Your task to perform on an android device: open app "Venmo" (install if not already installed) Image 0: 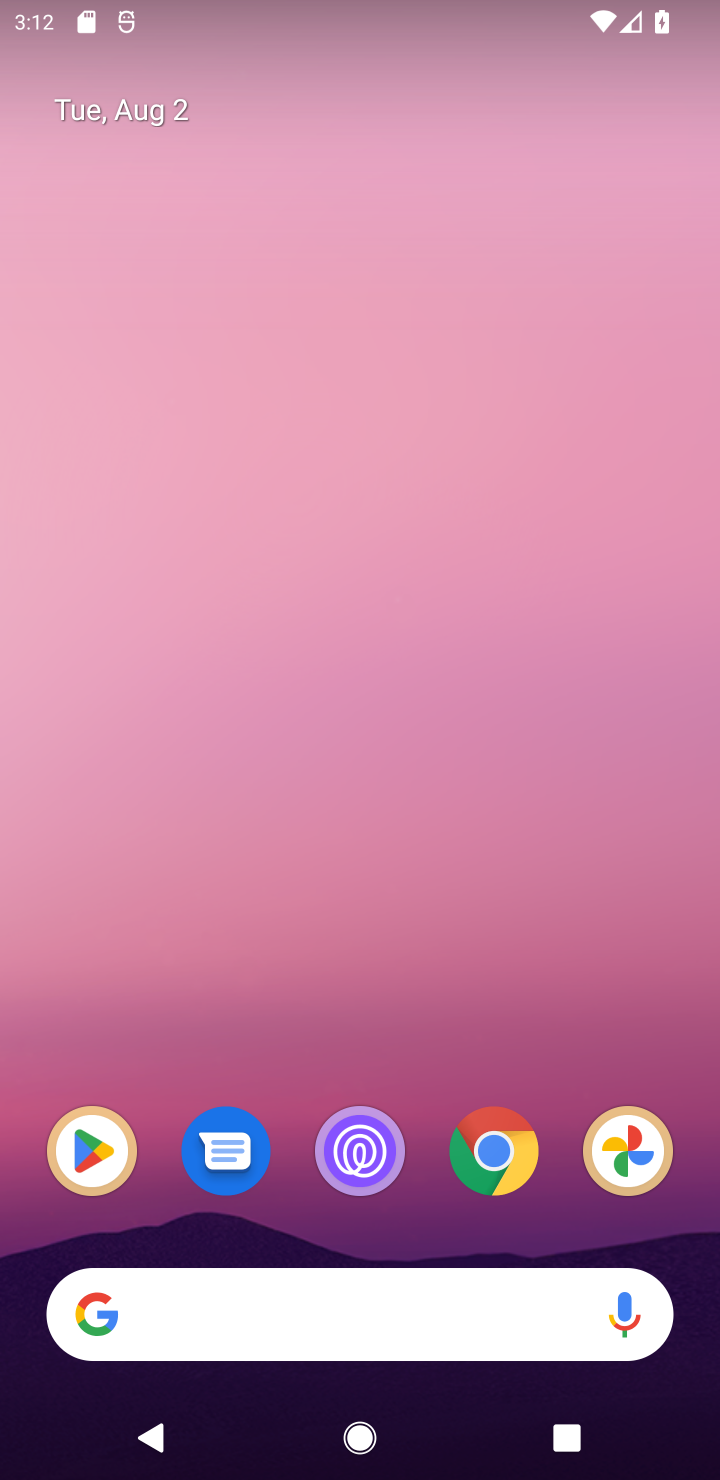
Step 0: drag from (423, 1389) to (346, 366)
Your task to perform on an android device: open app "Venmo" (install if not already installed) Image 1: 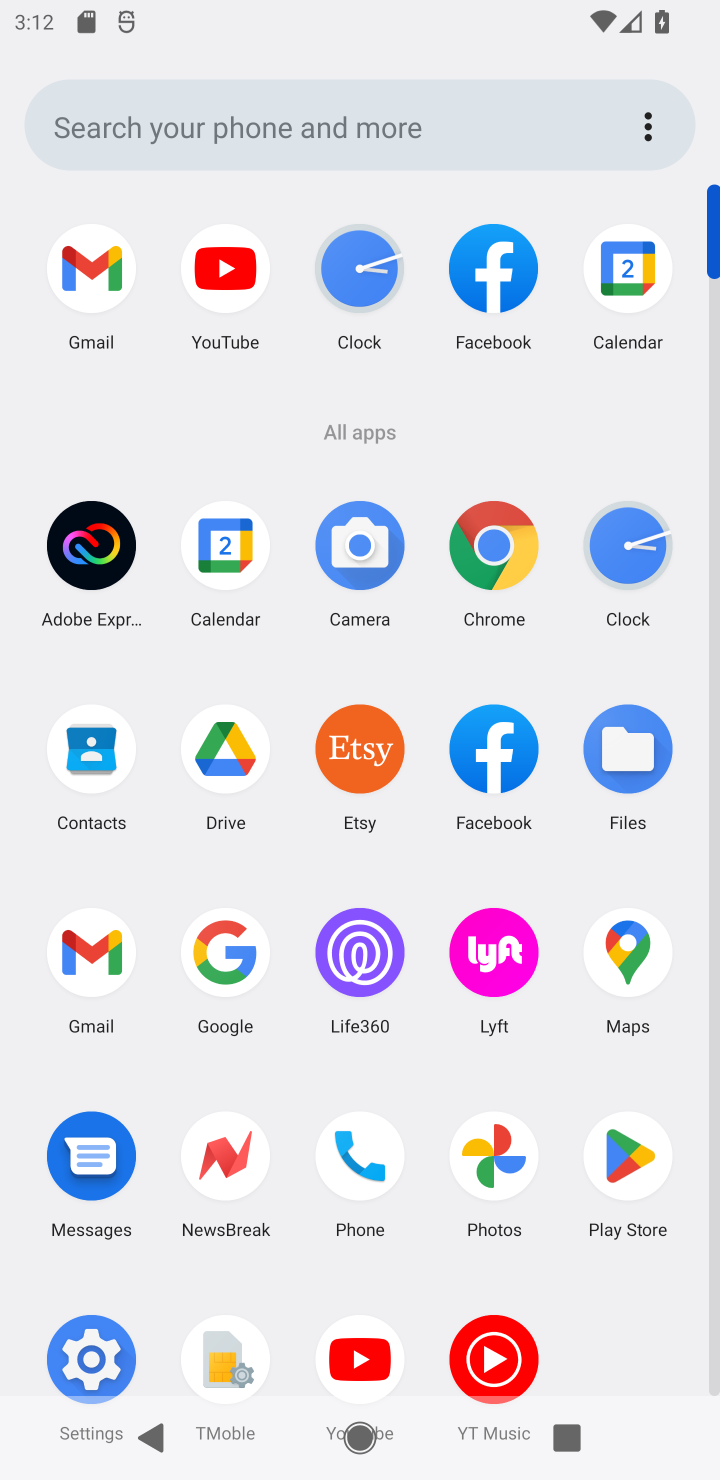
Step 1: press home button
Your task to perform on an android device: open app "Venmo" (install if not already installed) Image 2: 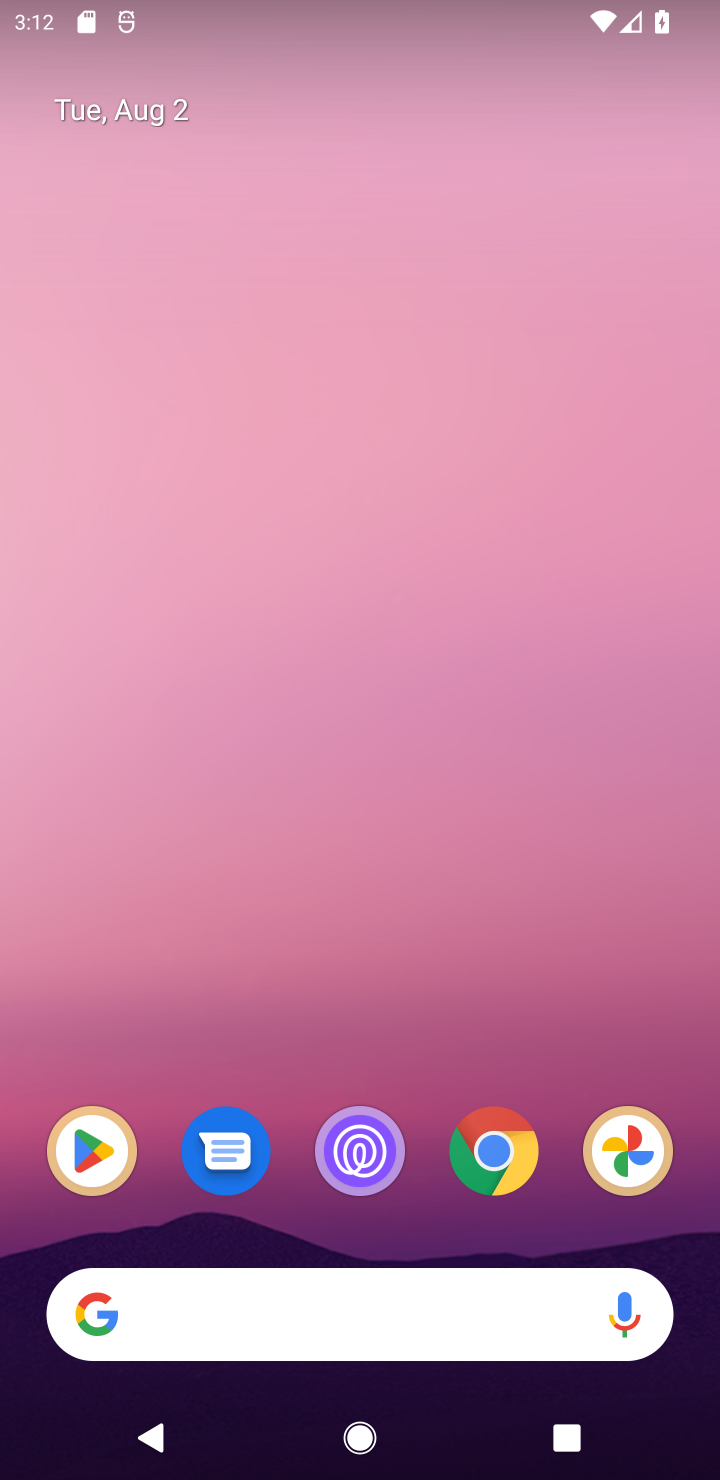
Step 2: drag from (395, 1411) to (334, 222)
Your task to perform on an android device: open app "Venmo" (install if not already installed) Image 3: 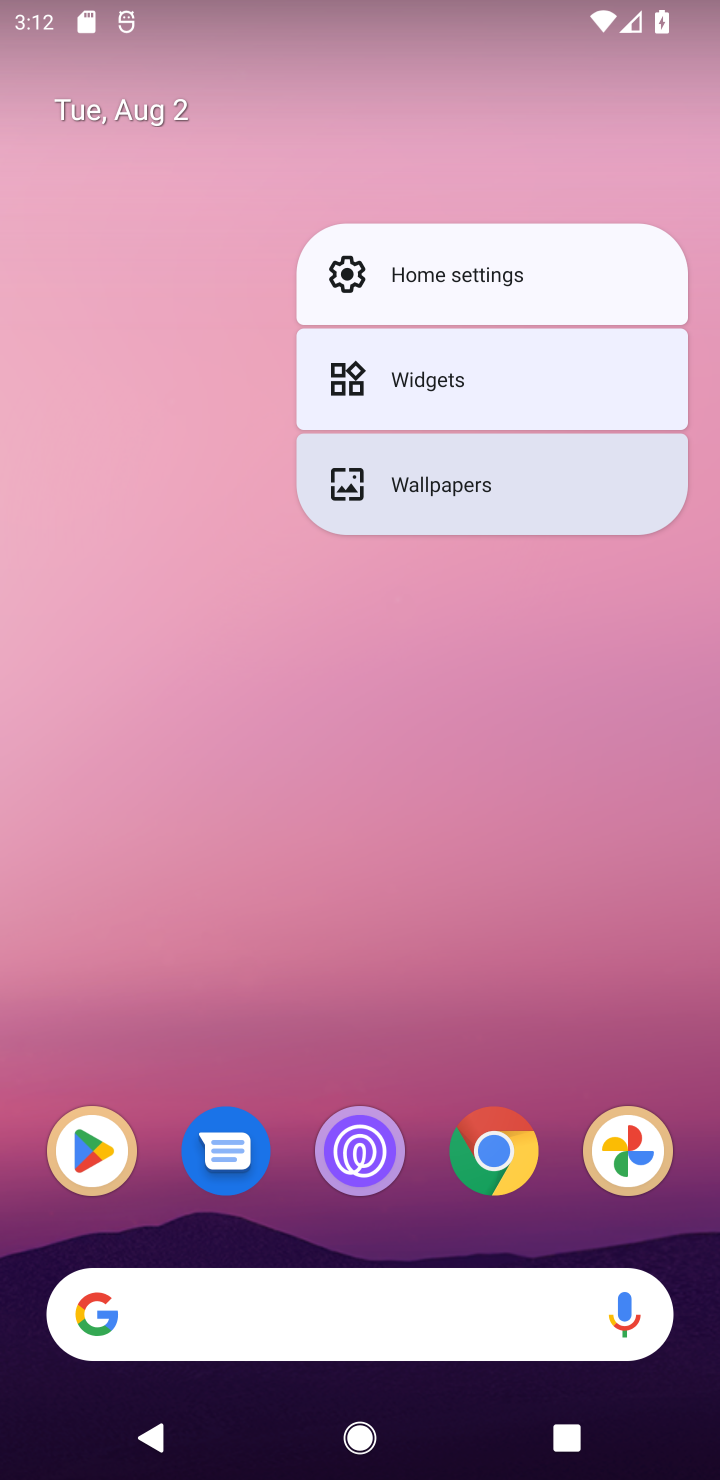
Step 3: click (444, 688)
Your task to perform on an android device: open app "Venmo" (install if not already installed) Image 4: 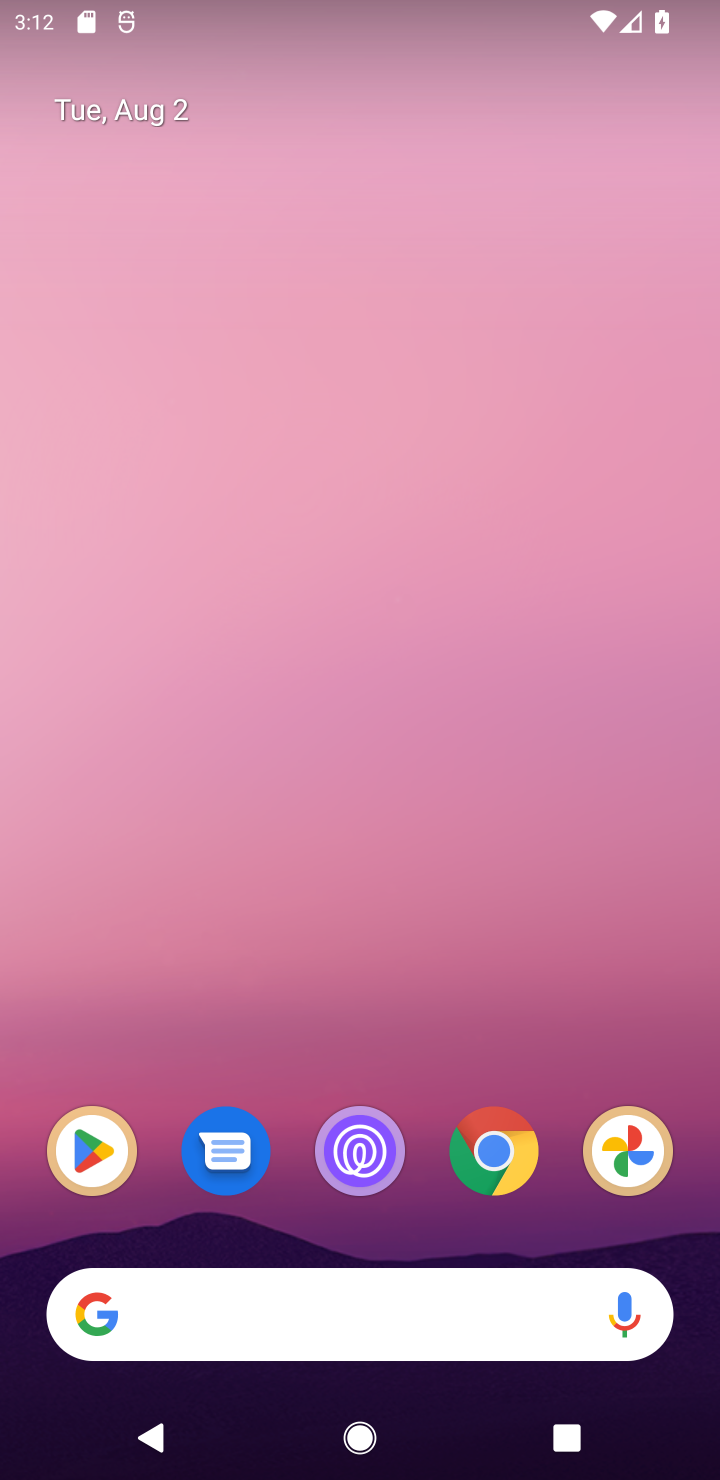
Step 4: drag from (442, 973) to (442, 235)
Your task to perform on an android device: open app "Venmo" (install if not already installed) Image 5: 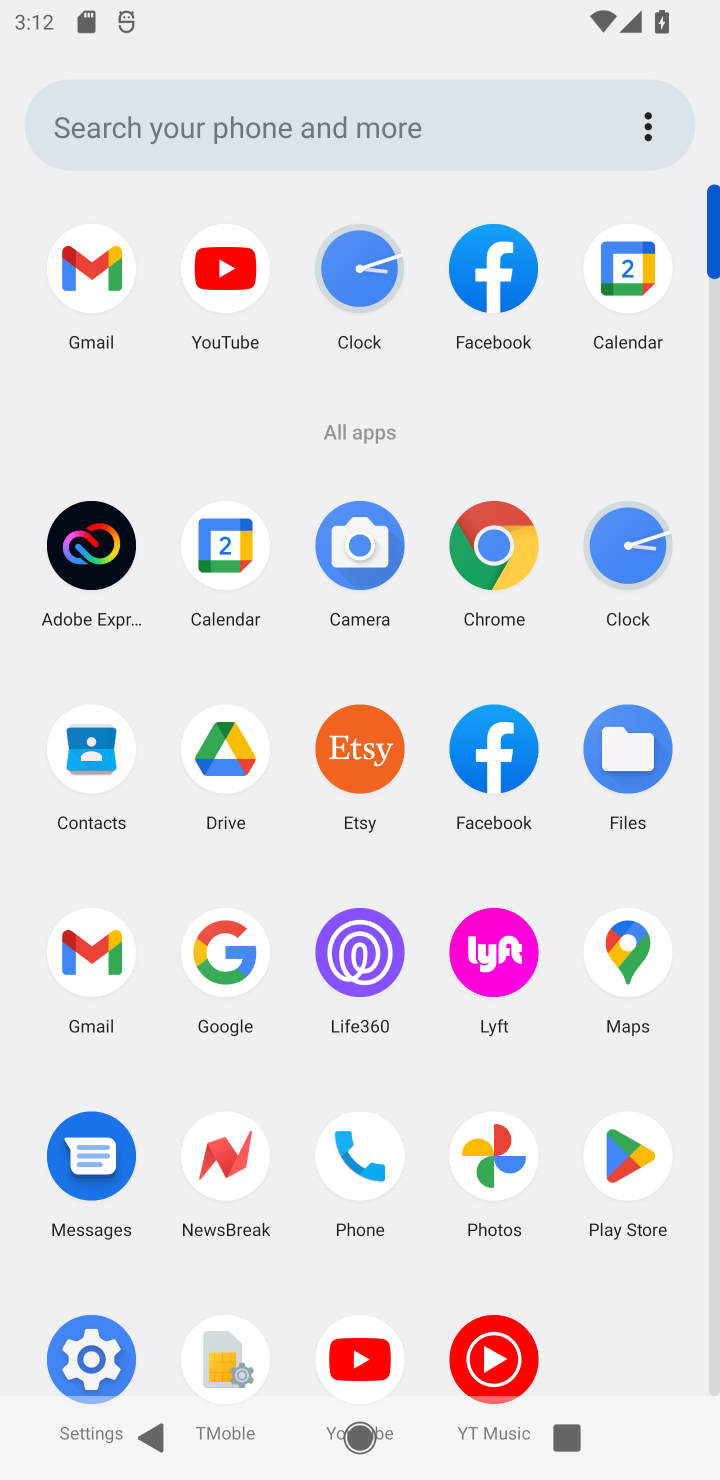
Step 5: click (628, 1151)
Your task to perform on an android device: open app "Venmo" (install if not already installed) Image 6: 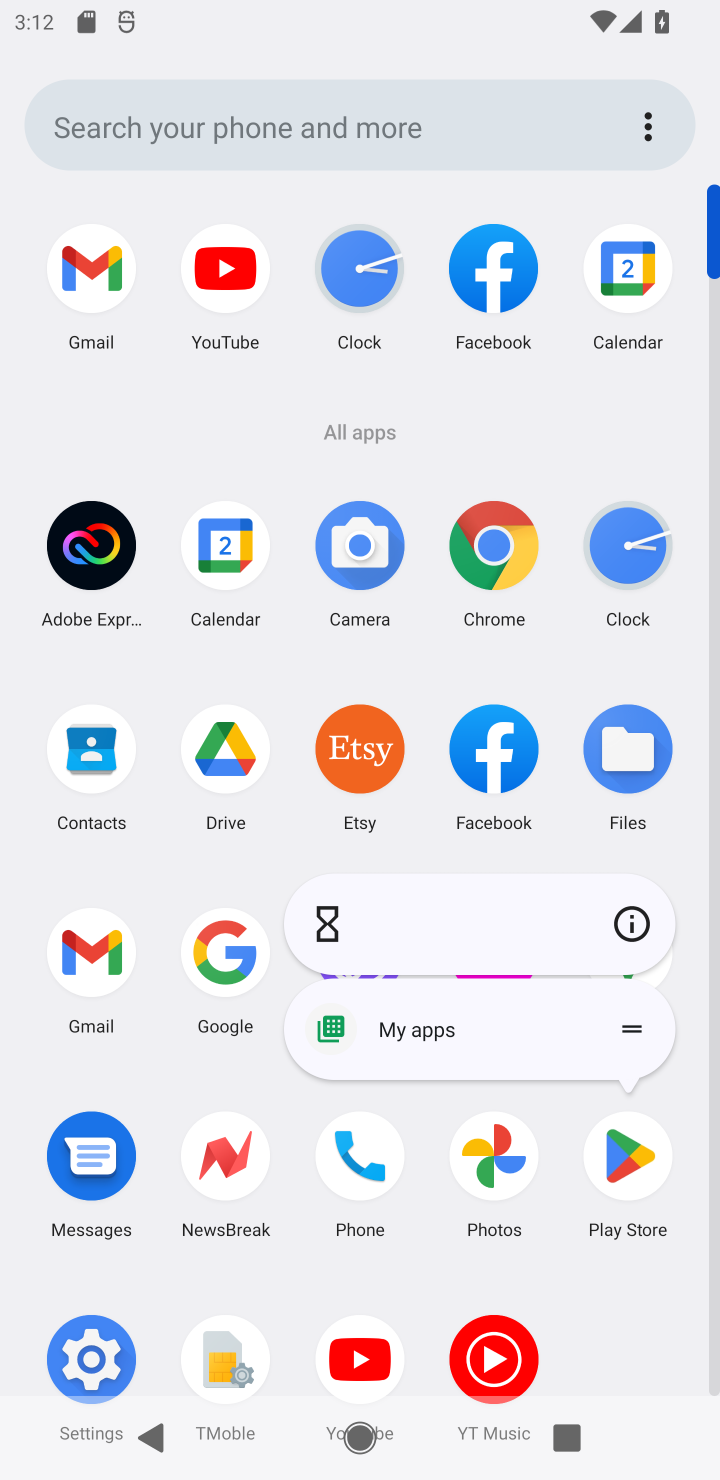
Step 6: click (630, 1146)
Your task to perform on an android device: open app "Venmo" (install if not already installed) Image 7: 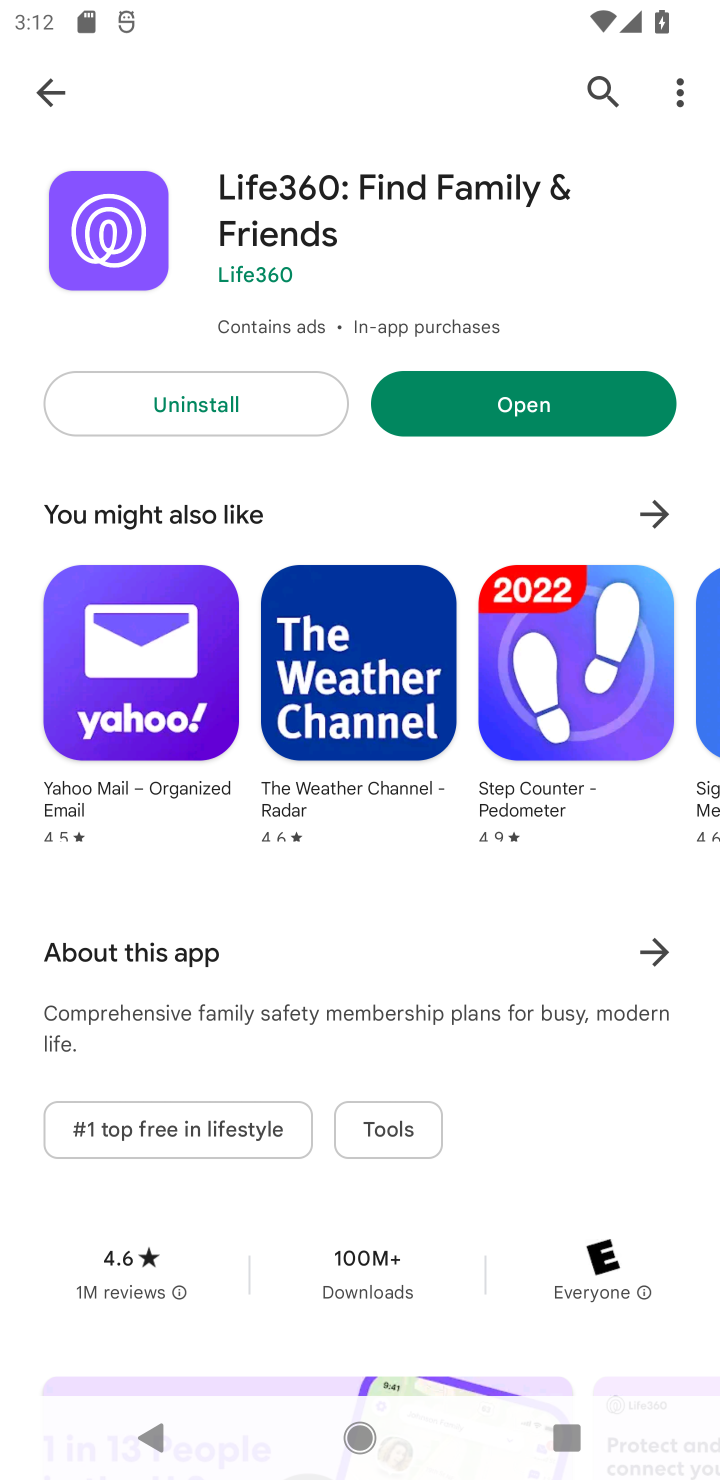
Step 7: click (590, 89)
Your task to perform on an android device: open app "Venmo" (install if not already installed) Image 8: 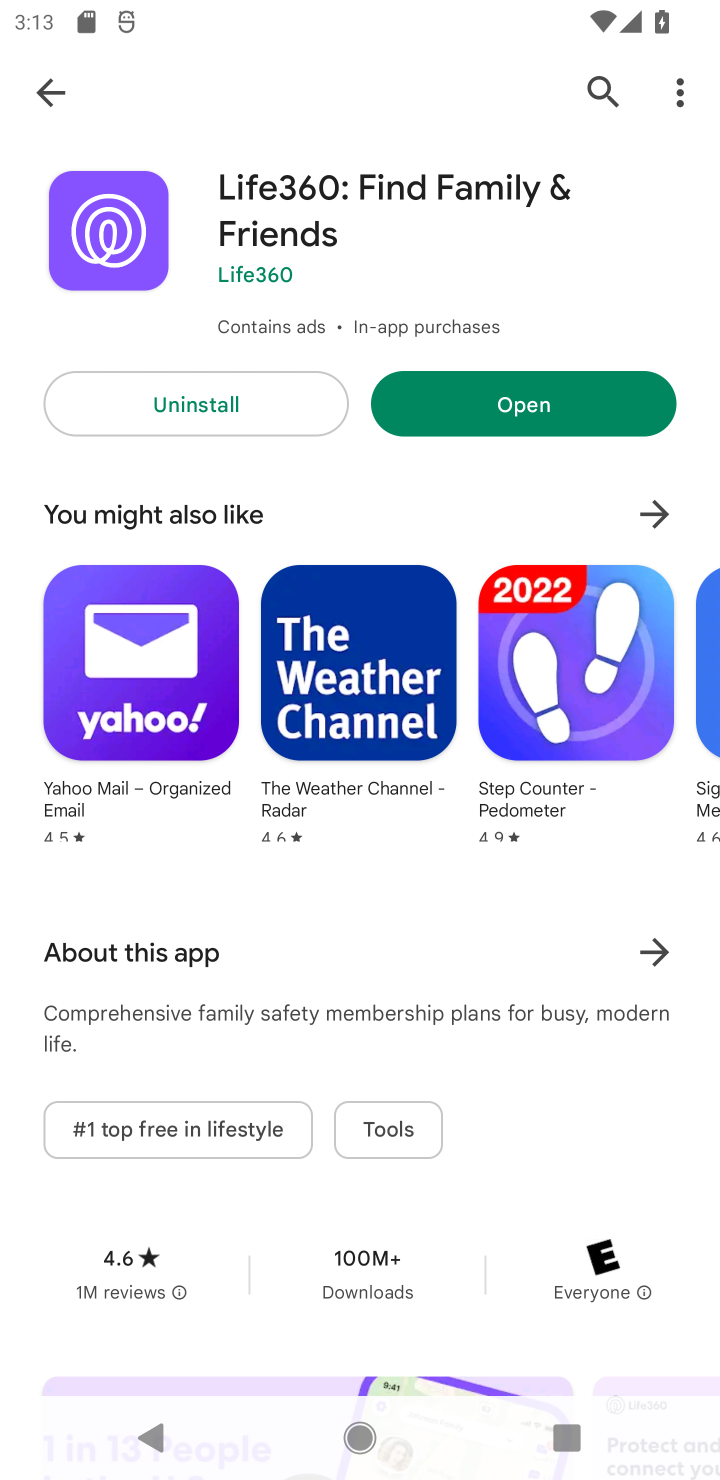
Step 8: click (608, 76)
Your task to perform on an android device: open app "Venmo" (install if not already installed) Image 9: 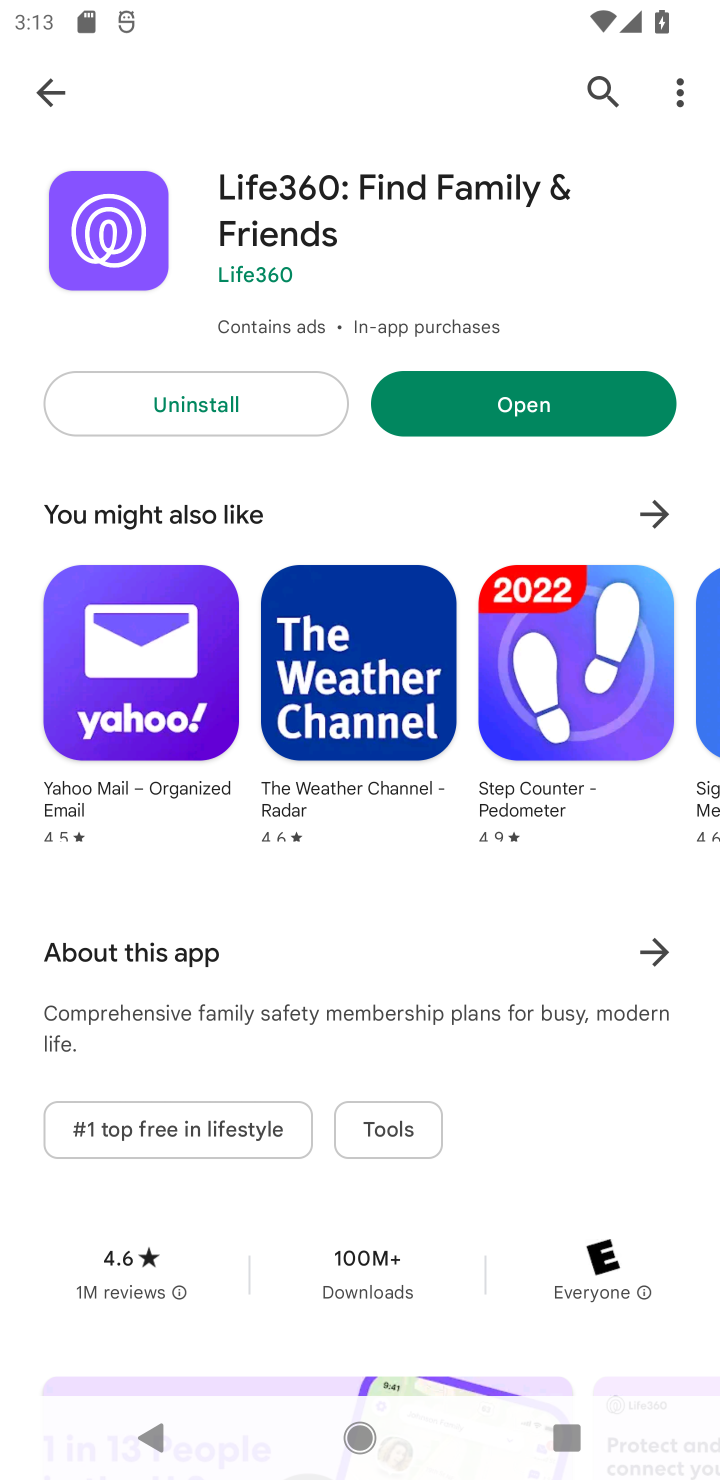
Step 9: click (608, 80)
Your task to perform on an android device: open app "Venmo" (install if not already installed) Image 10: 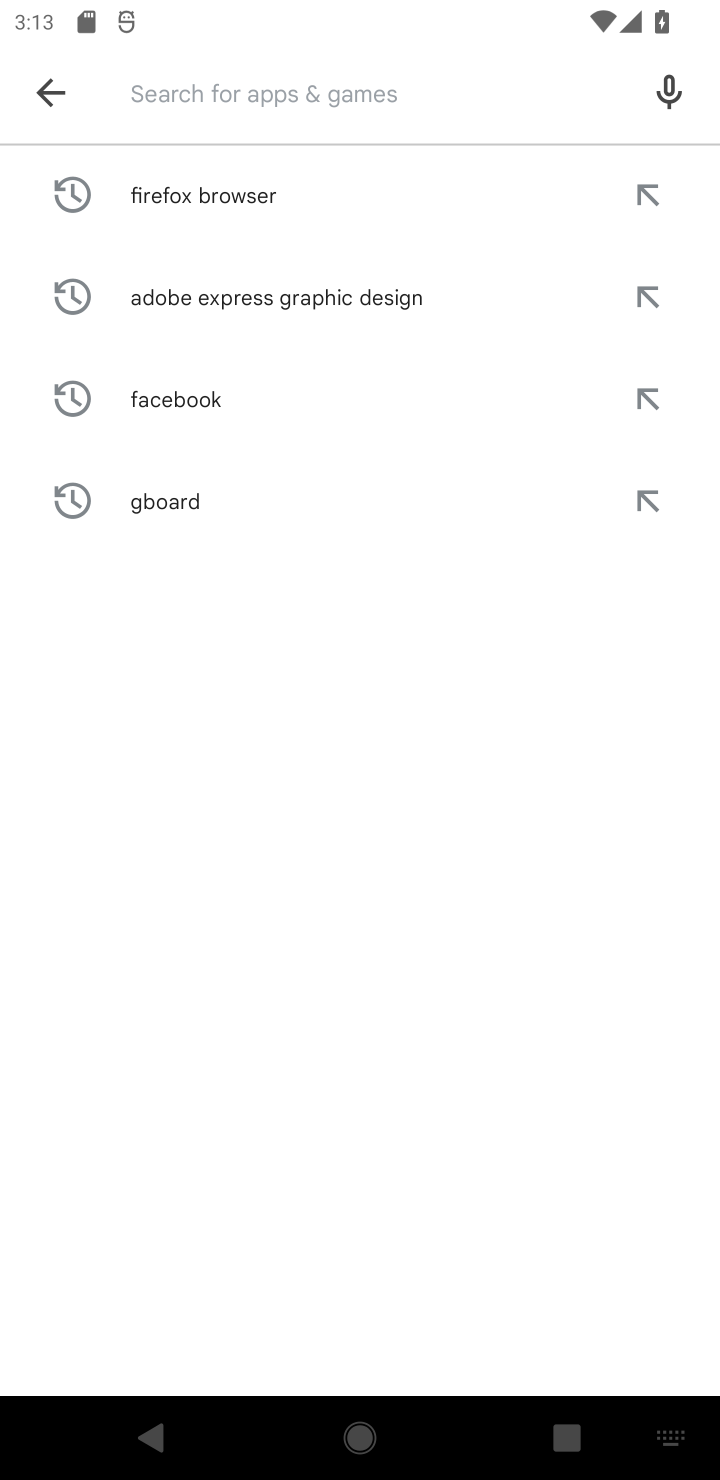
Step 10: type "Venmo"
Your task to perform on an android device: open app "Venmo" (install if not already installed) Image 11: 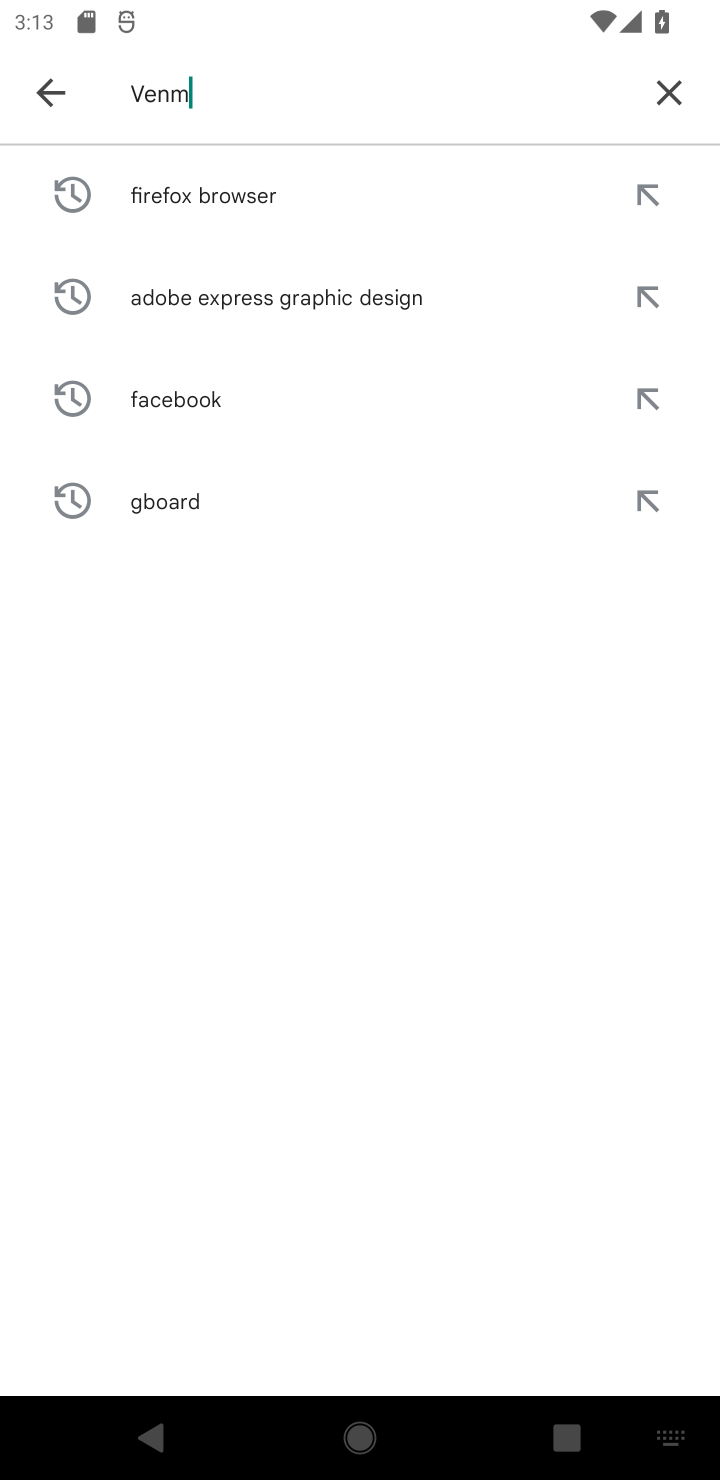
Step 11: type ""
Your task to perform on an android device: open app "Venmo" (install if not already installed) Image 12: 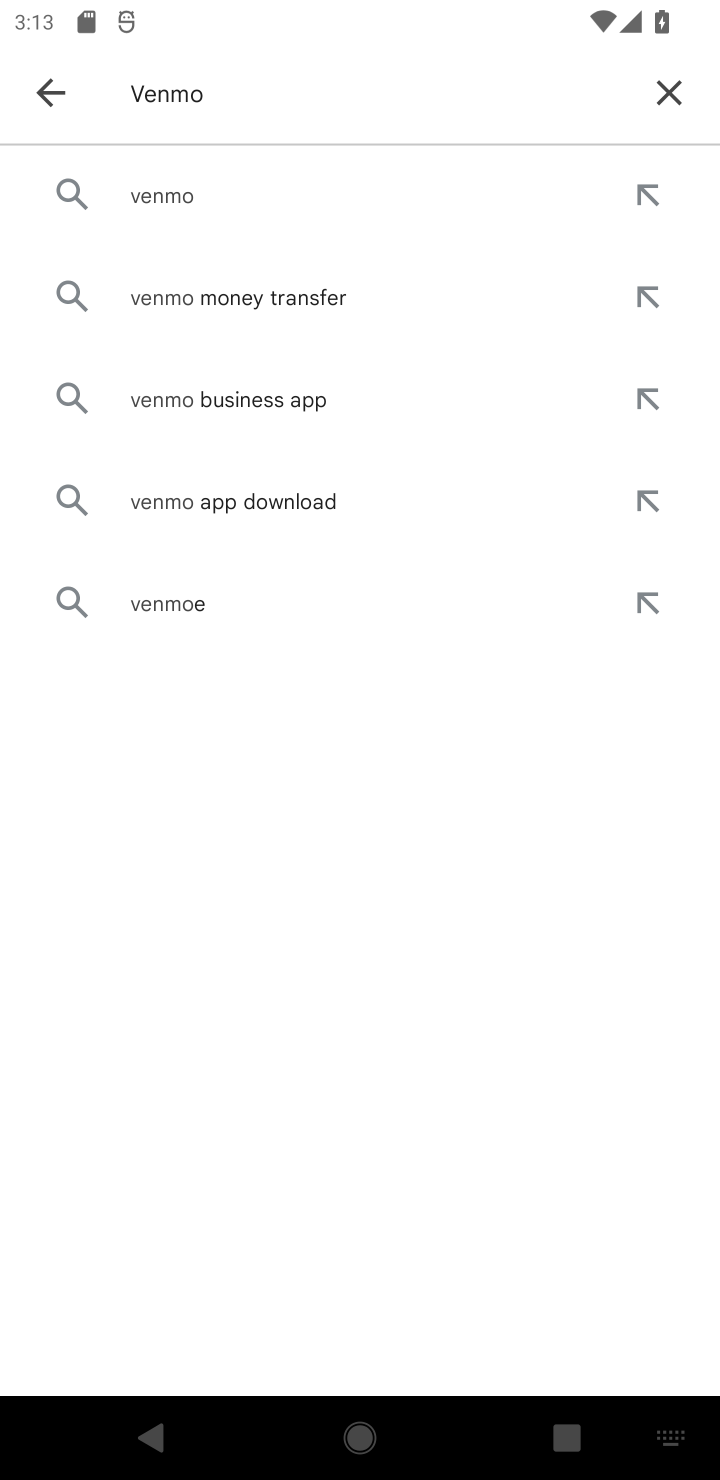
Step 12: click (148, 175)
Your task to perform on an android device: open app "Venmo" (install if not already installed) Image 13: 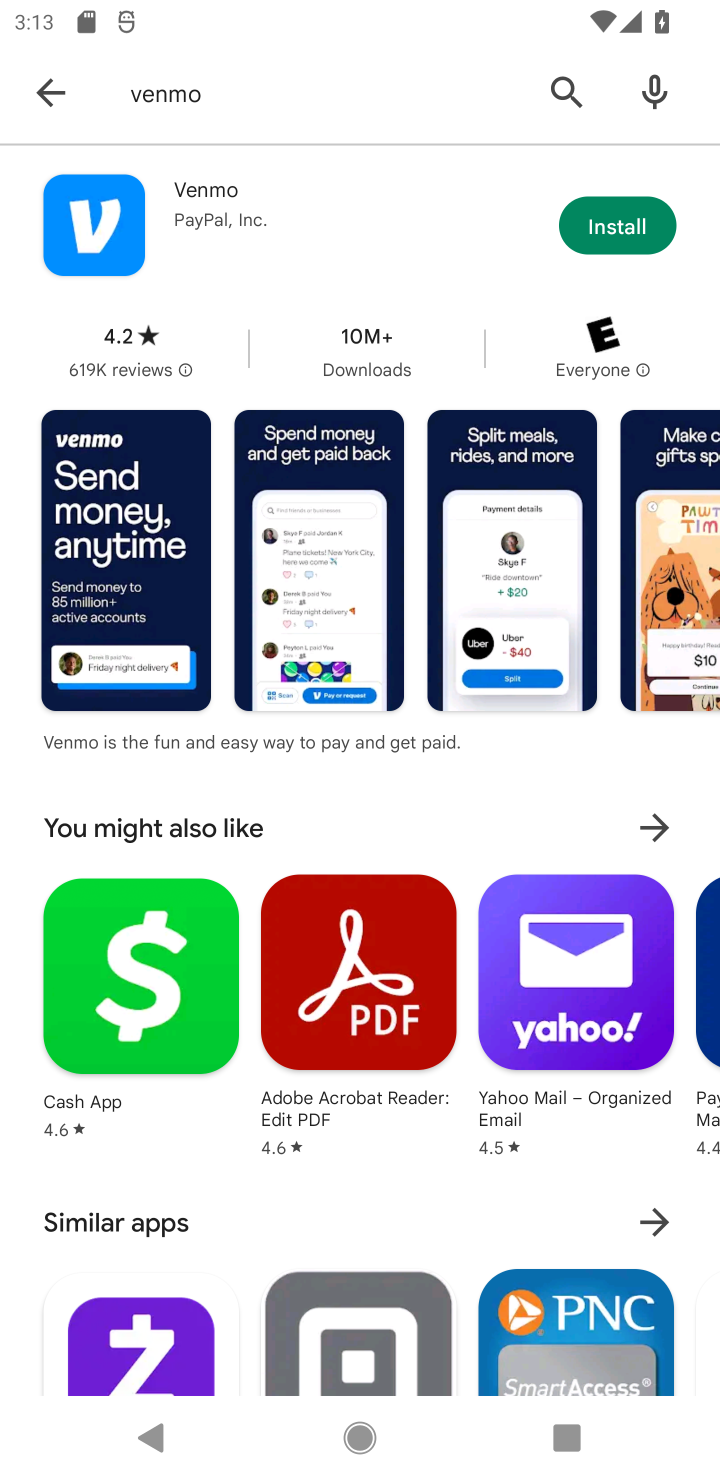
Step 13: click (596, 225)
Your task to perform on an android device: open app "Venmo" (install if not already installed) Image 14: 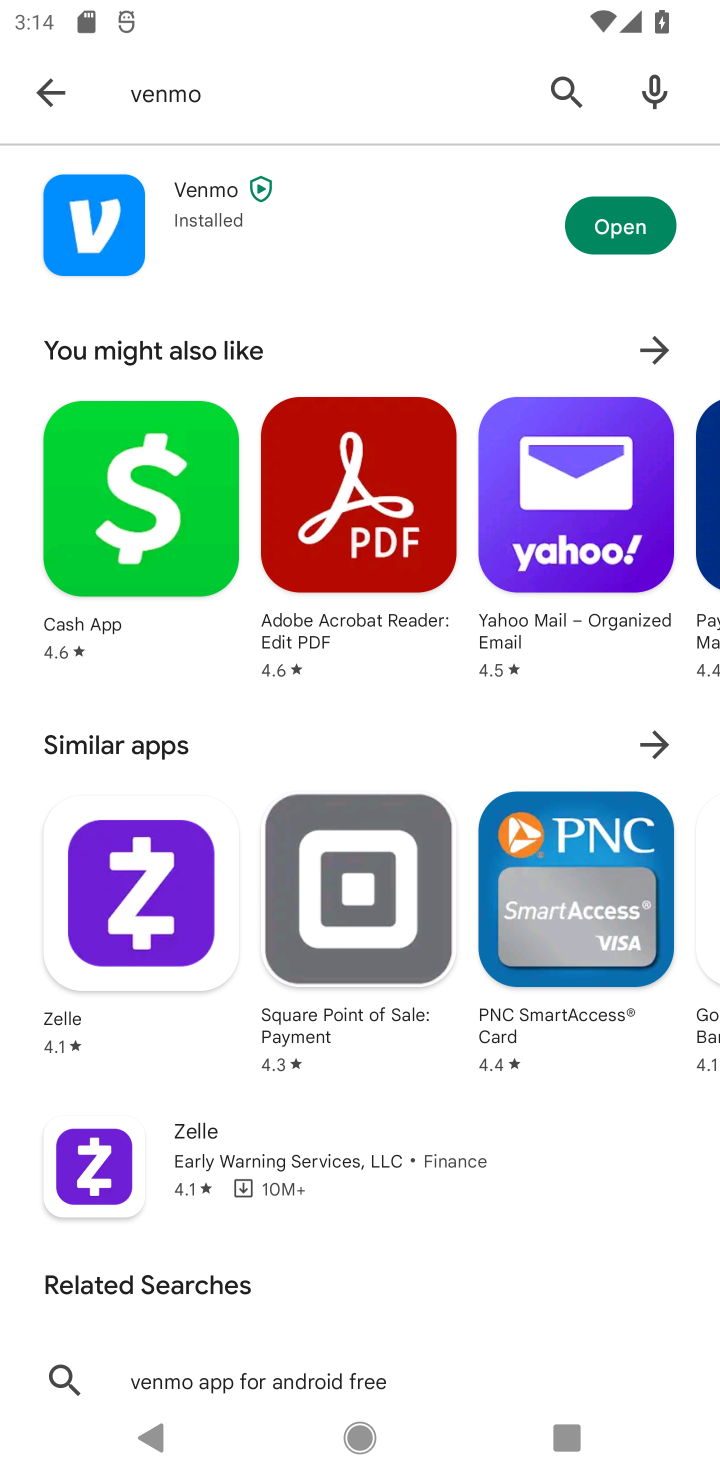
Step 14: task complete